Your task to perform on an android device: Open settings on Google Maps Image 0: 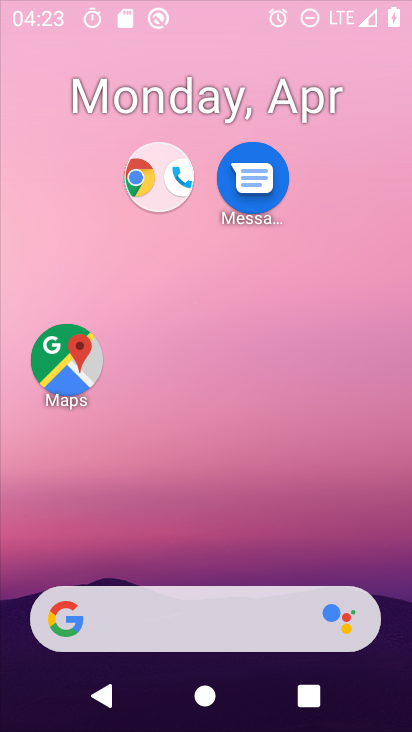
Step 0: drag from (233, 561) to (288, 3)
Your task to perform on an android device: Open settings on Google Maps Image 1: 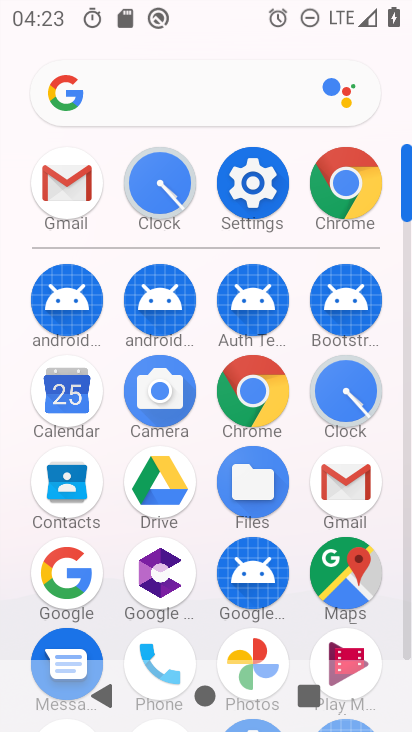
Step 1: click (327, 572)
Your task to perform on an android device: Open settings on Google Maps Image 2: 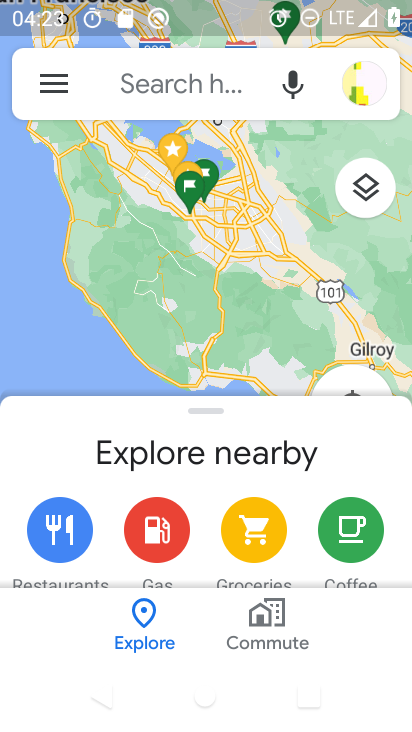
Step 2: click (58, 83)
Your task to perform on an android device: Open settings on Google Maps Image 3: 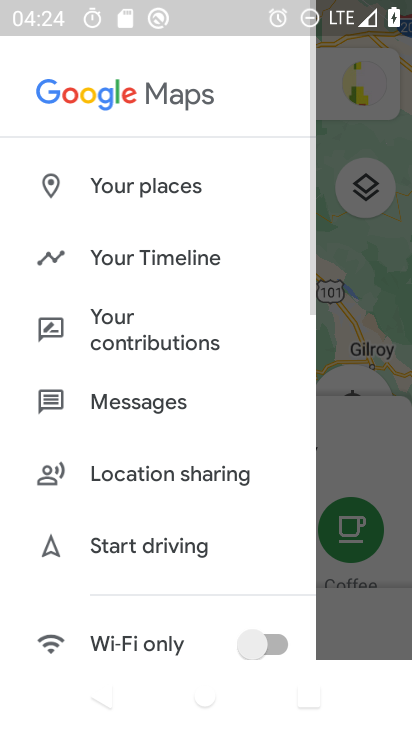
Step 3: drag from (184, 619) to (122, 45)
Your task to perform on an android device: Open settings on Google Maps Image 4: 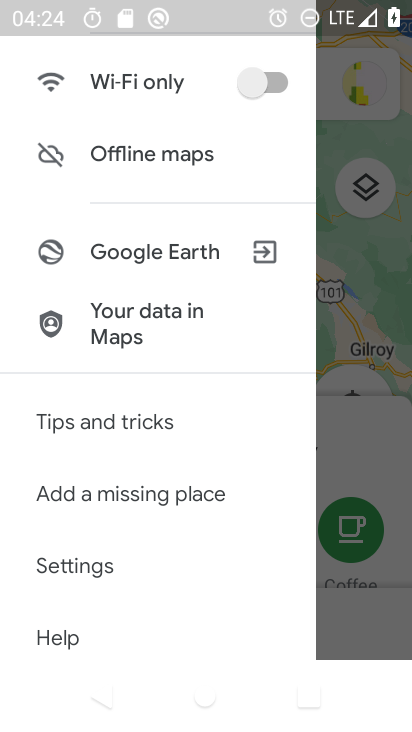
Step 4: click (124, 566)
Your task to perform on an android device: Open settings on Google Maps Image 5: 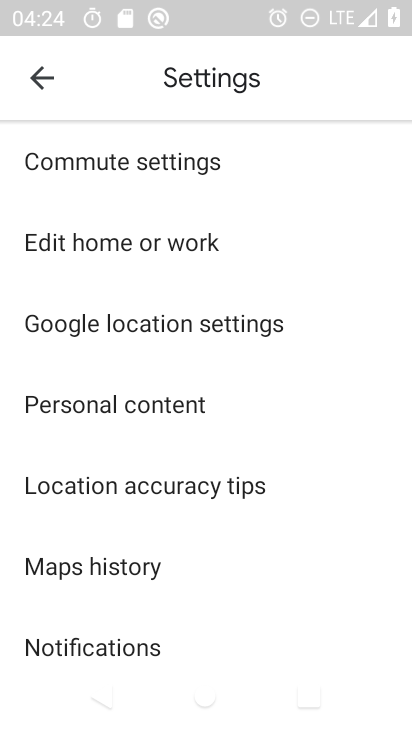
Step 5: task complete